Your task to perform on an android device: Go to network settings Image 0: 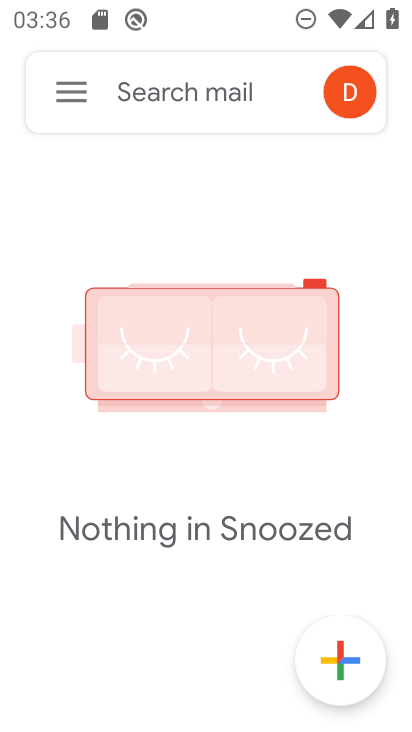
Step 0: press home button
Your task to perform on an android device: Go to network settings Image 1: 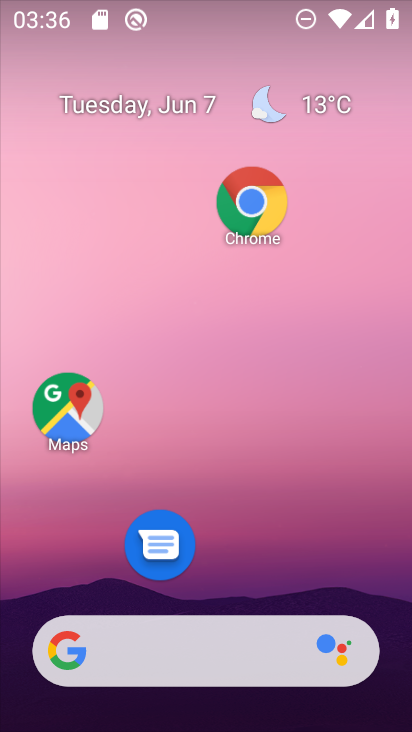
Step 1: drag from (244, 603) to (288, 251)
Your task to perform on an android device: Go to network settings Image 2: 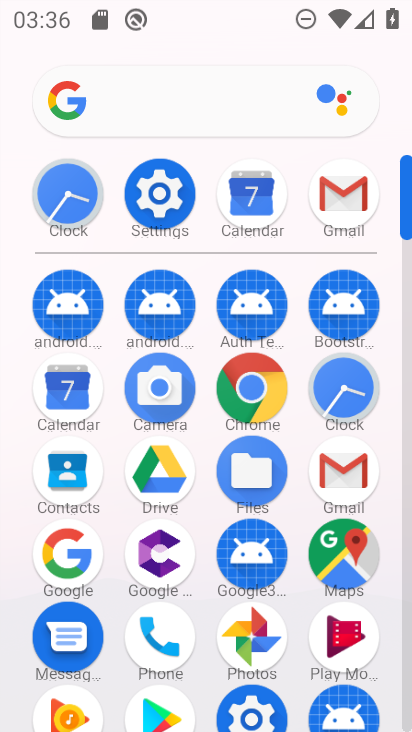
Step 2: click (150, 182)
Your task to perform on an android device: Go to network settings Image 3: 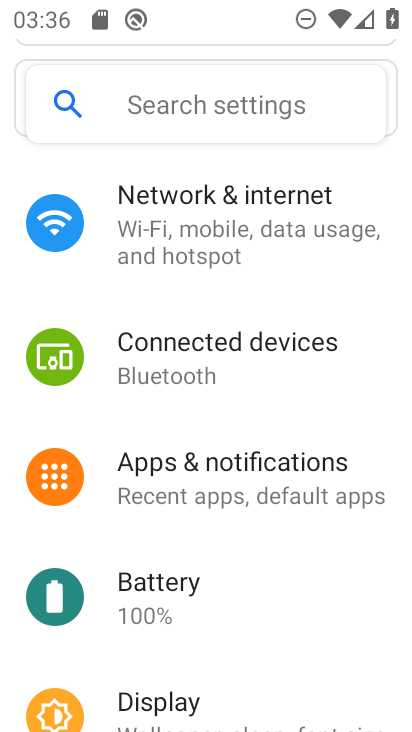
Step 3: click (191, 214)
Your task to perform on an android device: Go to network settings Image 4: 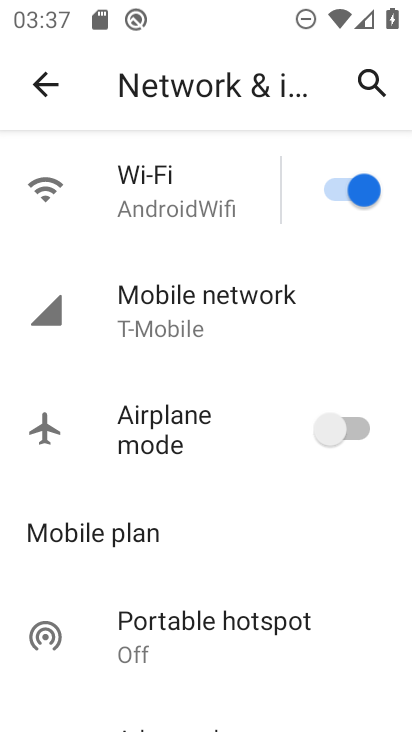
Step 4: task complete